Your task to perform on an android device: turn on location history Image 0: 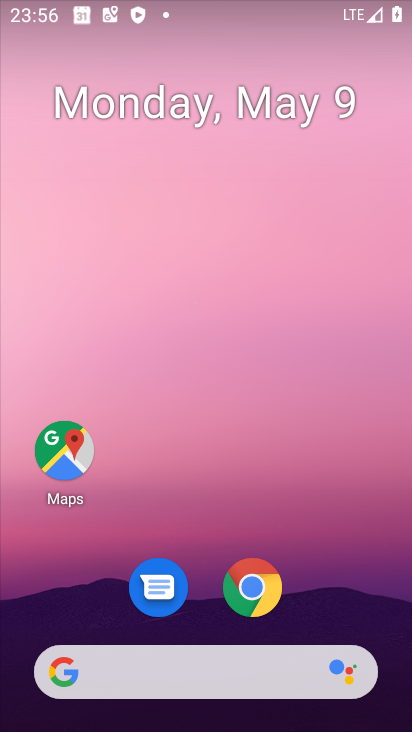
Step 0: drag from (192, 608) to (178, 190)
Your task to perform on an android device: turn on location history Image 1: 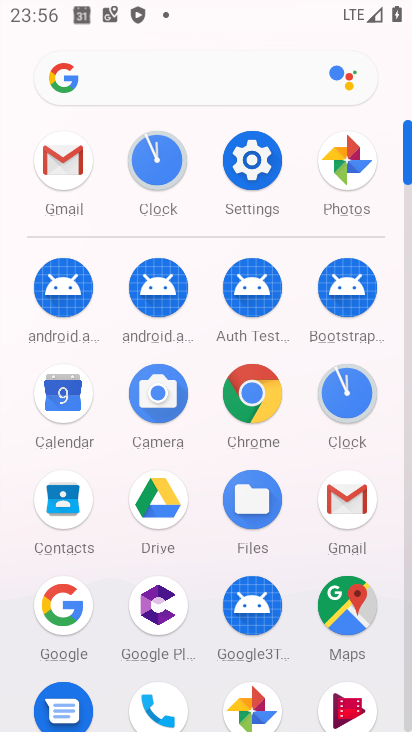
Step 1: click (258, 170)
Your task to perform on an android device: turn on location history Image 2: 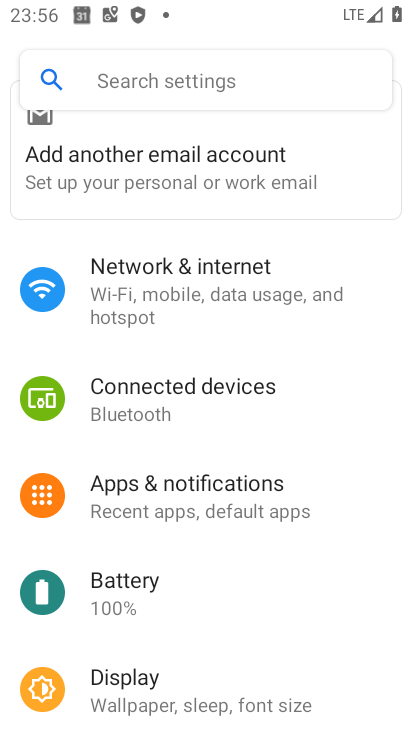
Step 2: drag from (245, 564) to (271, 103)
Your task to perform on an android device: turn on location history Image 3: 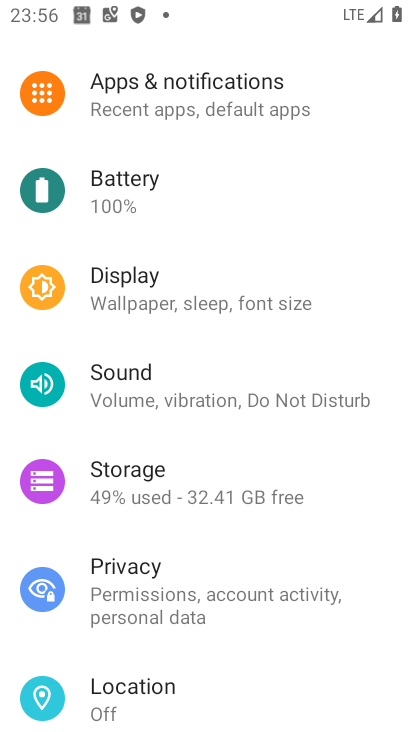
Step 3: click (111, 695)
Your task to perform on an android device: turn on location history Image 4: 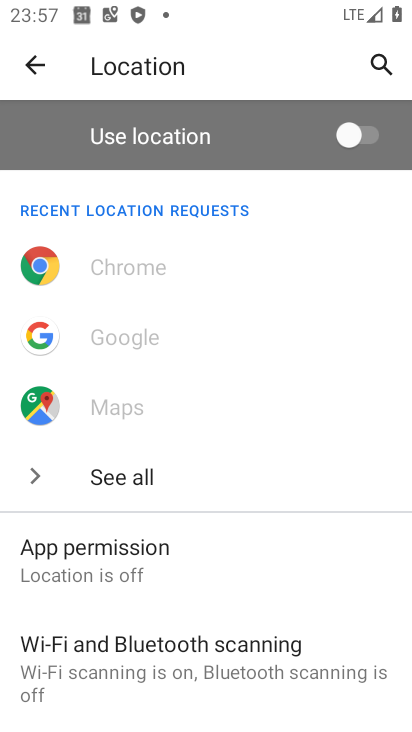
Step 4: drag from (166, 646) to (220, 124)
Your task to perform on an android device: turn on location history Image 5: 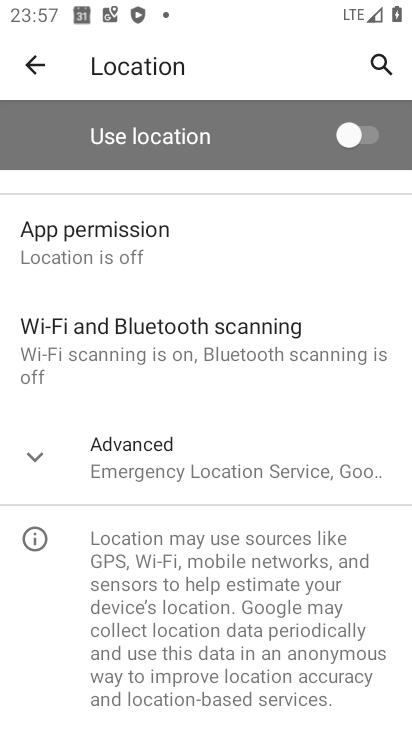
Step 5: click (243, 488)
Your task to perform on an android device: turn on location history Image 6: 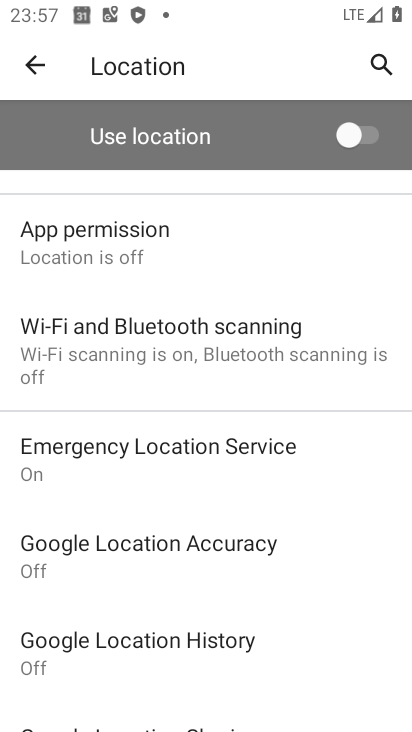
Step 6: click (219, 640)
Your task to perform on an android device: turn on location history Image 7: 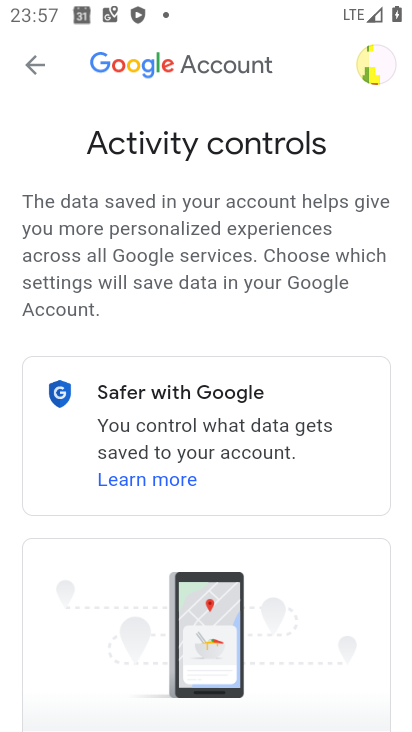
Step 7: task complete